Your task to perform on an android device: Open notification settings Image 0: 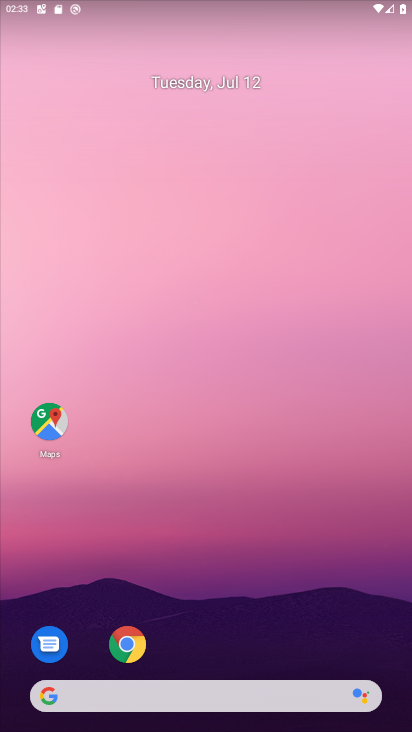
Step 0: drag from (197, 683) to (192, 130)
Your task to perform on an android device: Open notification settings Image 1: 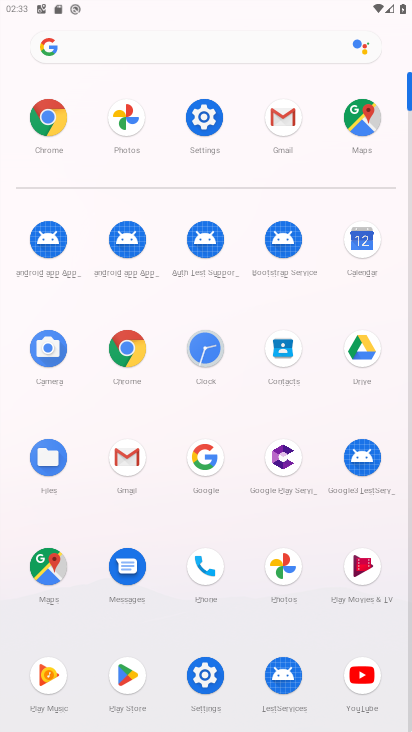
Step 1: click (210, 667)
Your task to perform on an android device: Open notification settings Image 2: 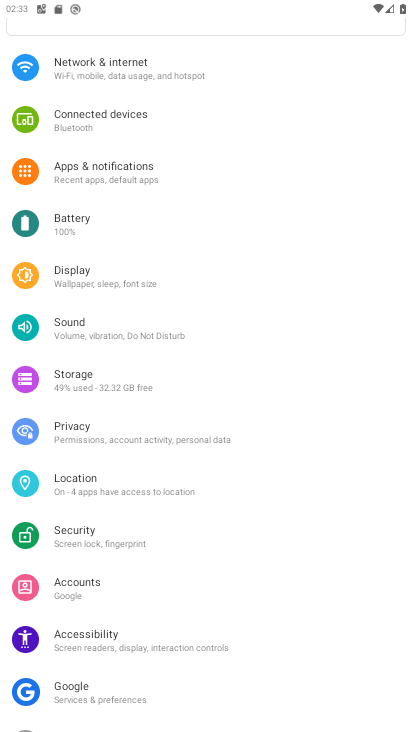
Step 2: click (137, 173)
Your task to perform on an android device: Open notification settings Image 3: 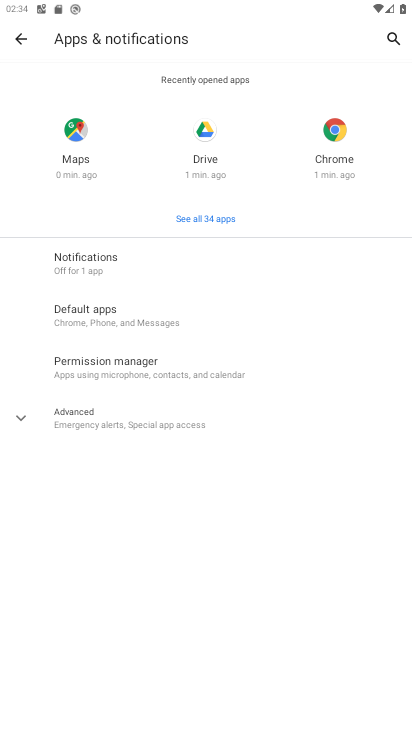
Step 3: click (76, 276)
Your task to perform on an android device: Open notification settings Image 4: 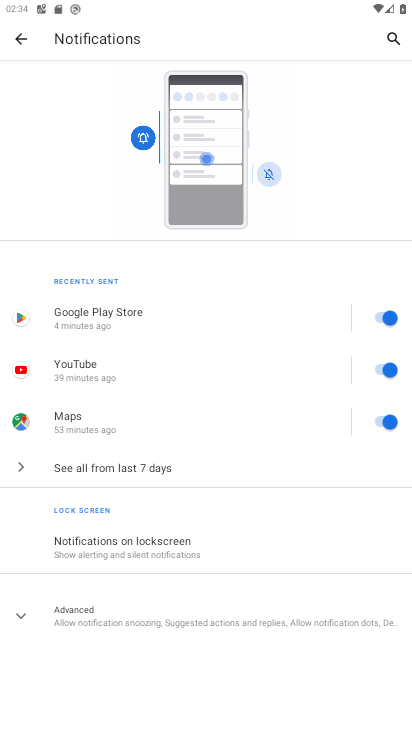
Step 4: task complete